Your task to perform on an android device: Open Android settings Image 0: 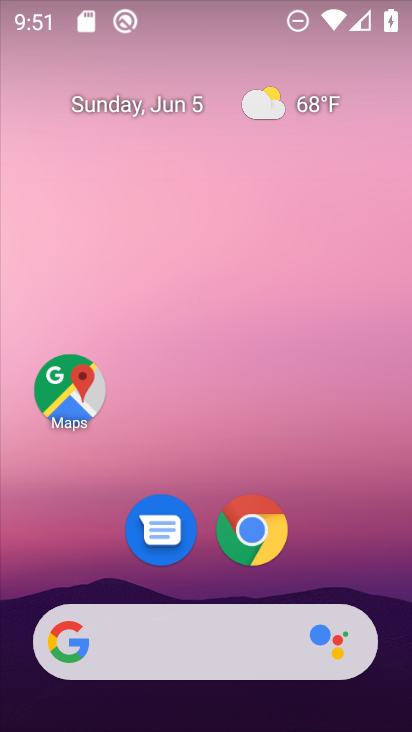
Step 0: drag from (361, 524) to (332, 238)
Your task to perform on an android device: Open Android settings Image 1: 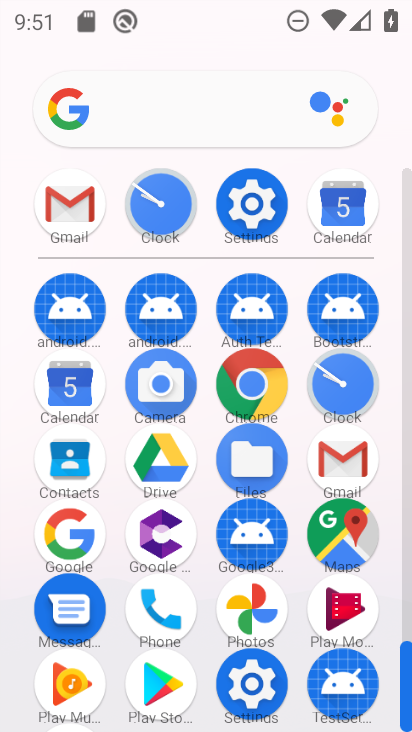
Step 1: click (251, 688)
Your task to perform on an android device: Open Android settings Image 2: 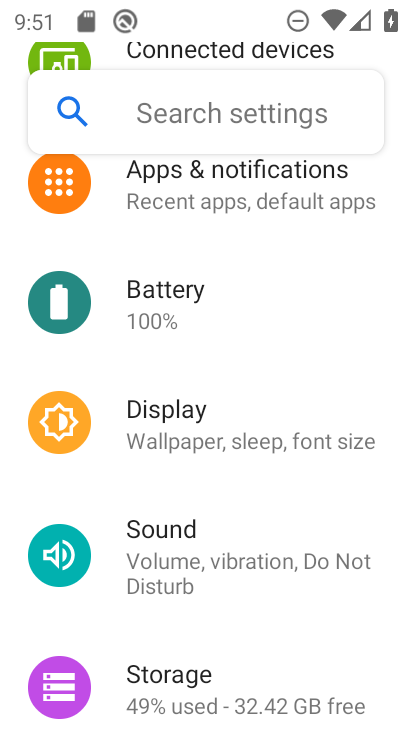
Step 2: drag from (252, 698) to (232, 276)
Your task to perform on an android device: Open Android settings Image 3: 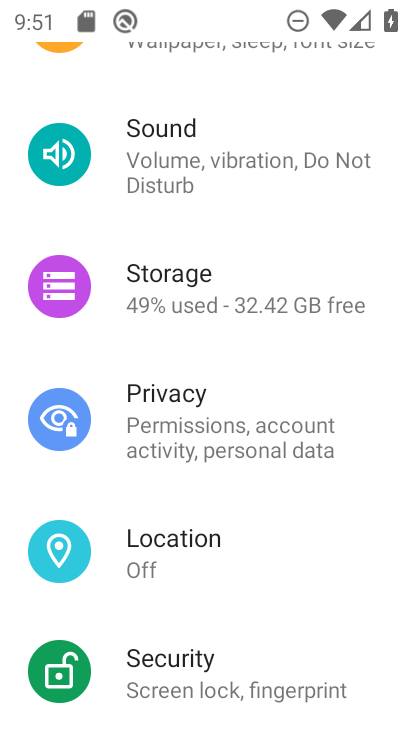
Step 3: drag from (304, 672) to (246, 160)
Your task to perform on an android device: Open Android settings Image 4: 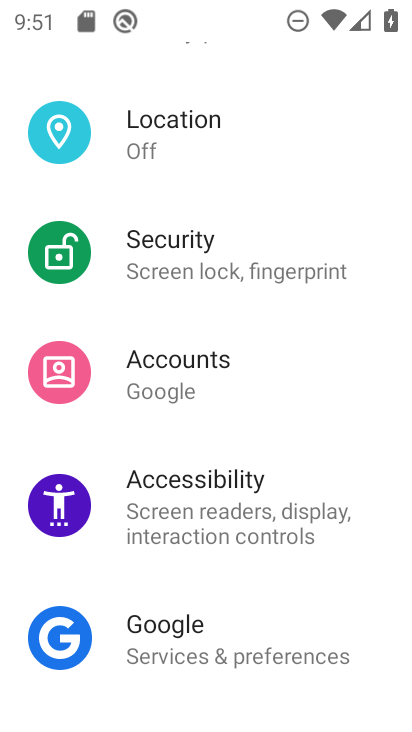
Step 4: drag from (252, 440) to (235, 27)
Your task to perform on an android device: Open Android settings Image 5: 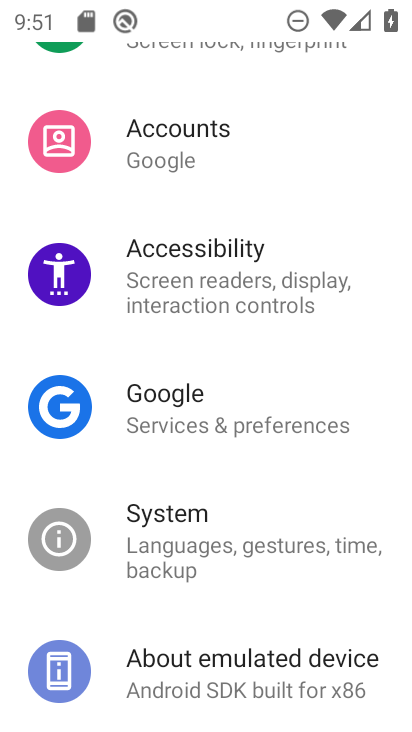
Step 5: click (243, 670)
Your task to perform on an android device: Open Android settings Image 6: 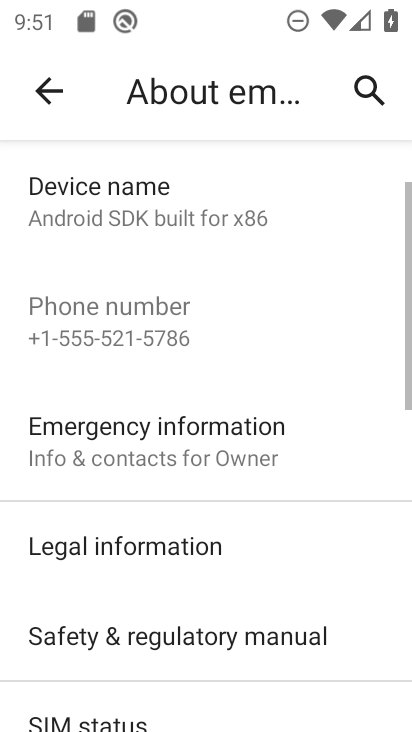
Step 6: task complete